Your task to perform on an android device: Toggle the flashlight Image 0: 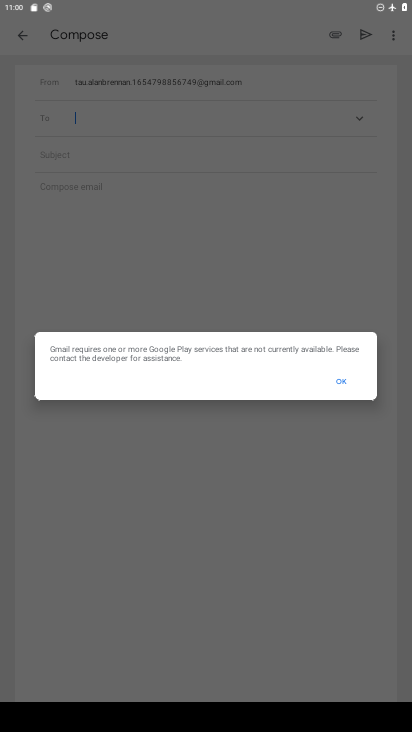
Step 0: press home button
Your task to perform on an android device: Toggle the flashlight Image 1: 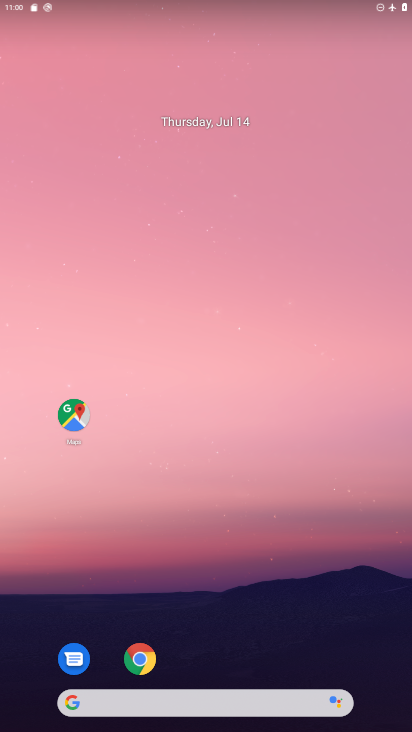
Step 1: drag from (300, 581) to (310, 126)
Your task to perform on an android device: Toggle the flashlight Image 2: 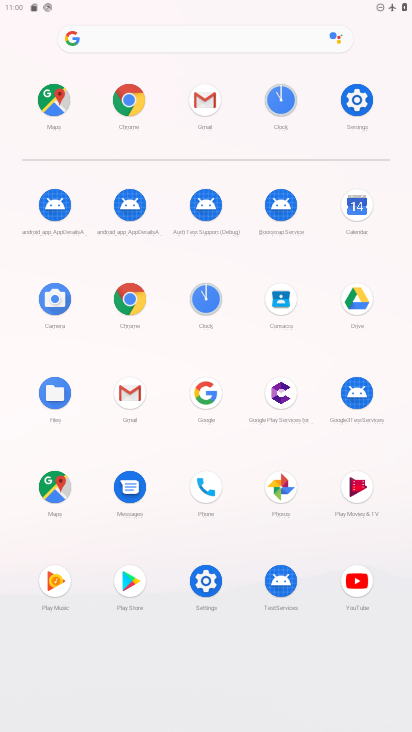
Step 2: click (366, 100)
Your task to perform on an android device: Toggle the flashlight Image 3: 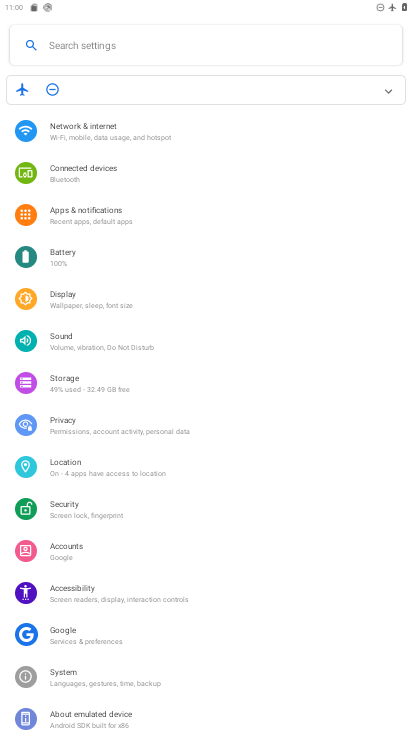
Step 3: click (85, 303)
Your task to perform on an android device: Toggle the flashlight Image 4: 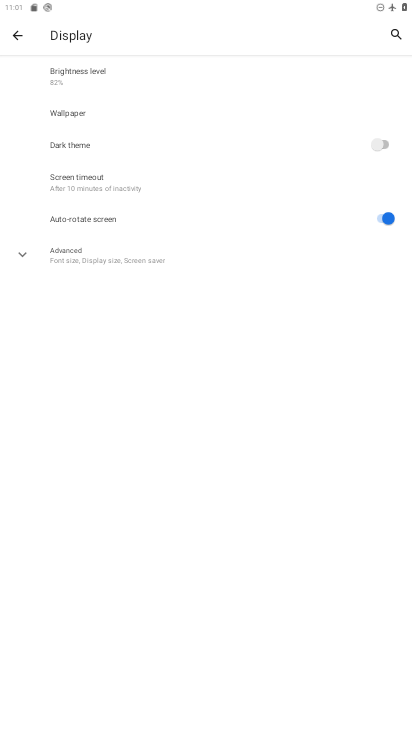
Step 4: task complete